Your task to perform on an android device: Search for the best coffee tables on Crate & Barrel Image 0: 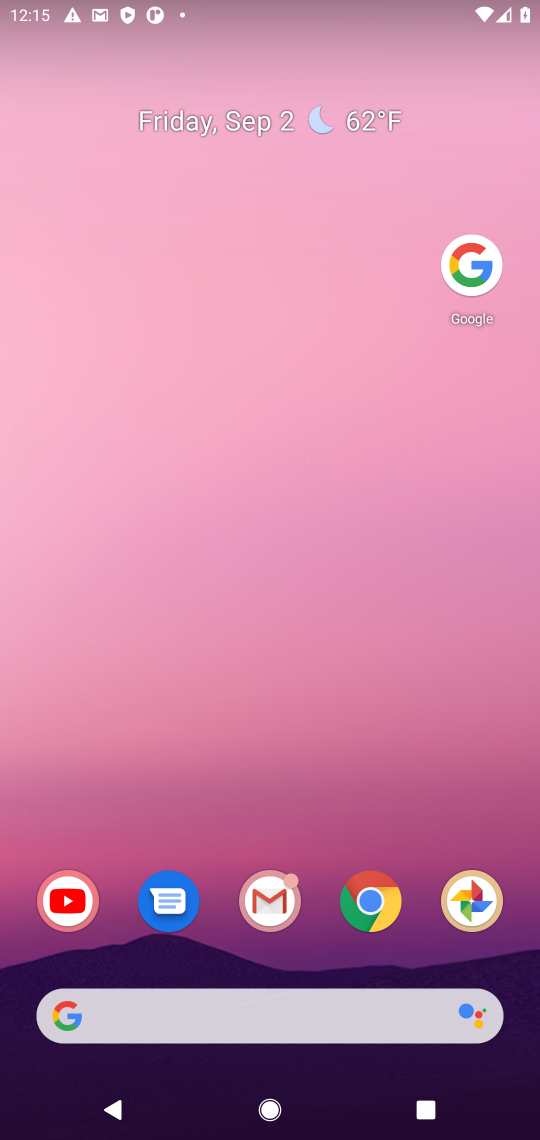
Step 0: drag from (276, 1004) to (263, 480)
Your task to perform on an android device: Search for the best coffee tables on Crate & Barrel Image 1: 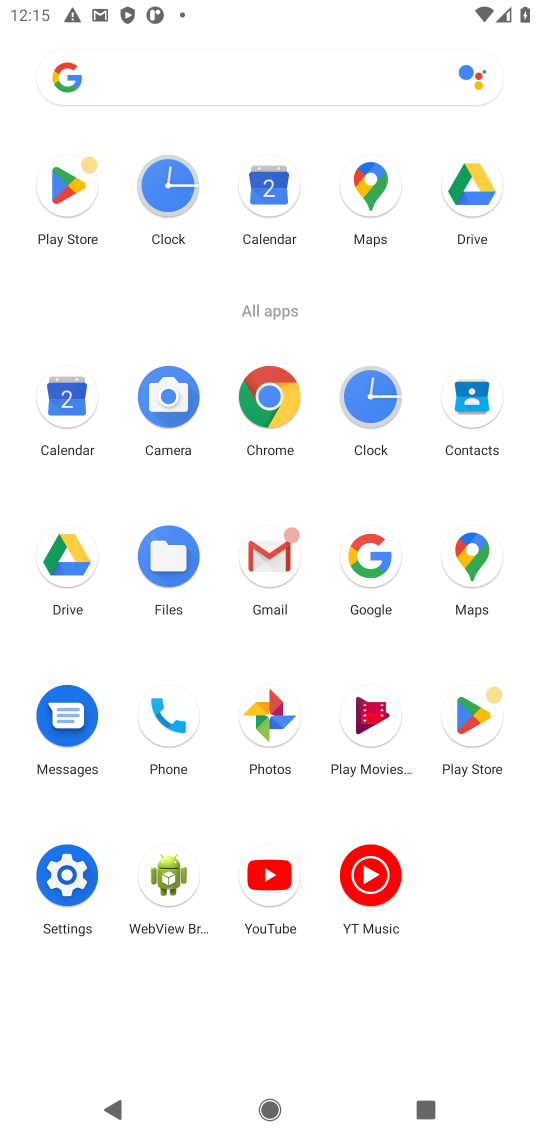
Step 1: click (361, 543)
Your task to perform on an android device: Search for the best coffee tables on Crate & Barrel Image 2: 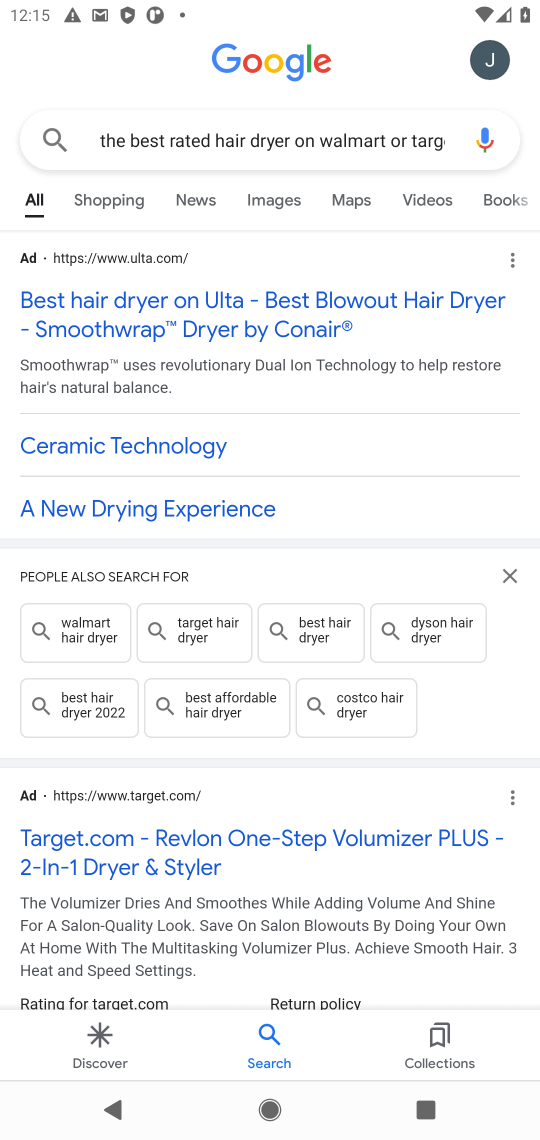
Step 2: click (384, 143)
Your task to perform on an android device: Search for the best coffee tables on Crate & Barrel Image 3: 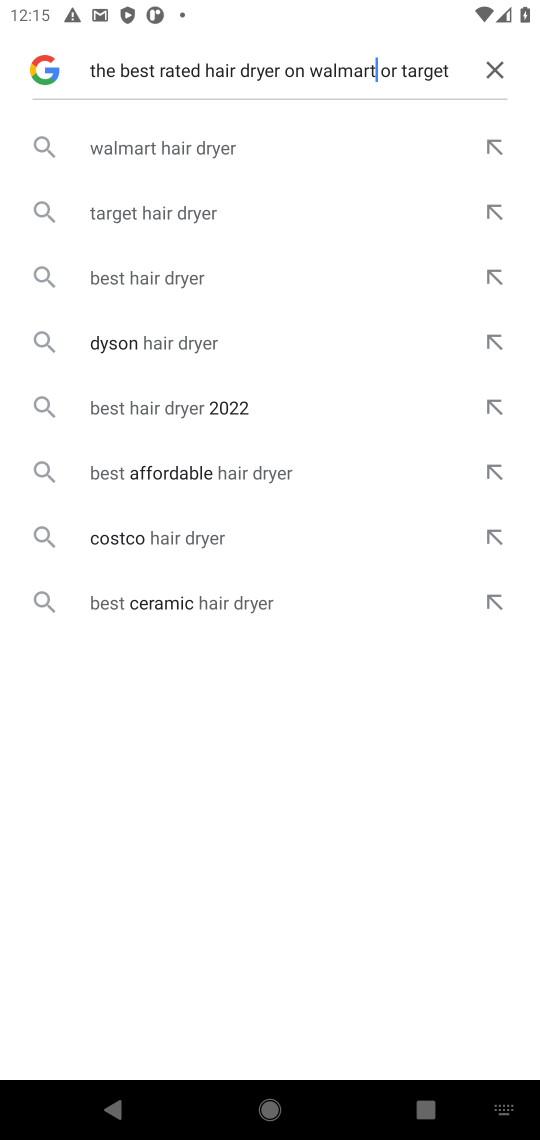
Step 3: click (493, 63)
Your task to perform on an android device: Search for the best coffee tables on Crate & Barrel Image 4: 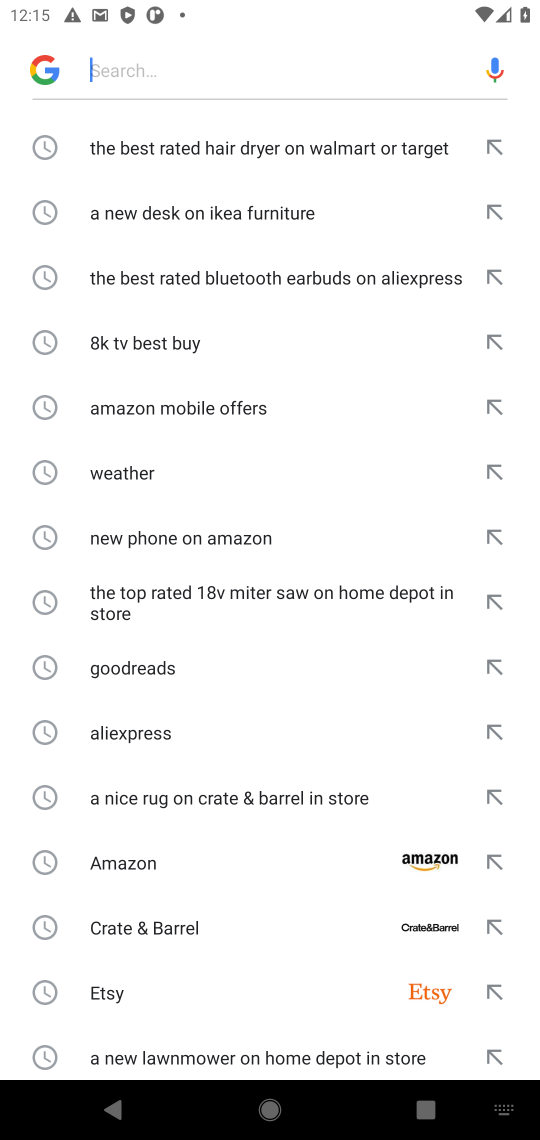
Step 4: click (289, 76)
Your task to perform on an android device: Search for the best coffee tables on Crate & Barrel Image 5: 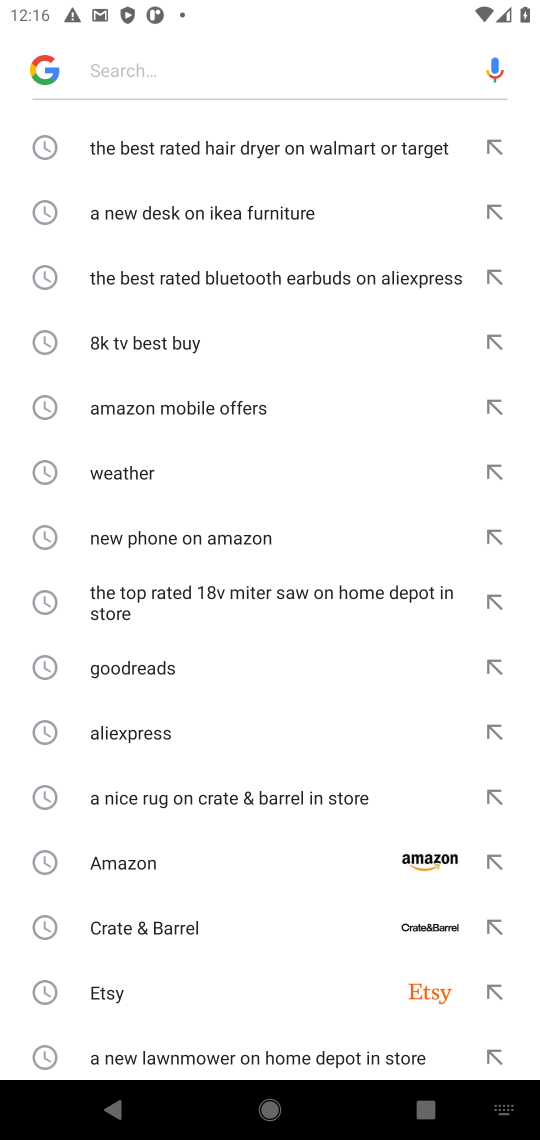
Step 5: type "the best coffee tables on Crate & Barrel "
Your task to perform on an android device: Search for the best coffee tables on Crate & Barrel Image 6: 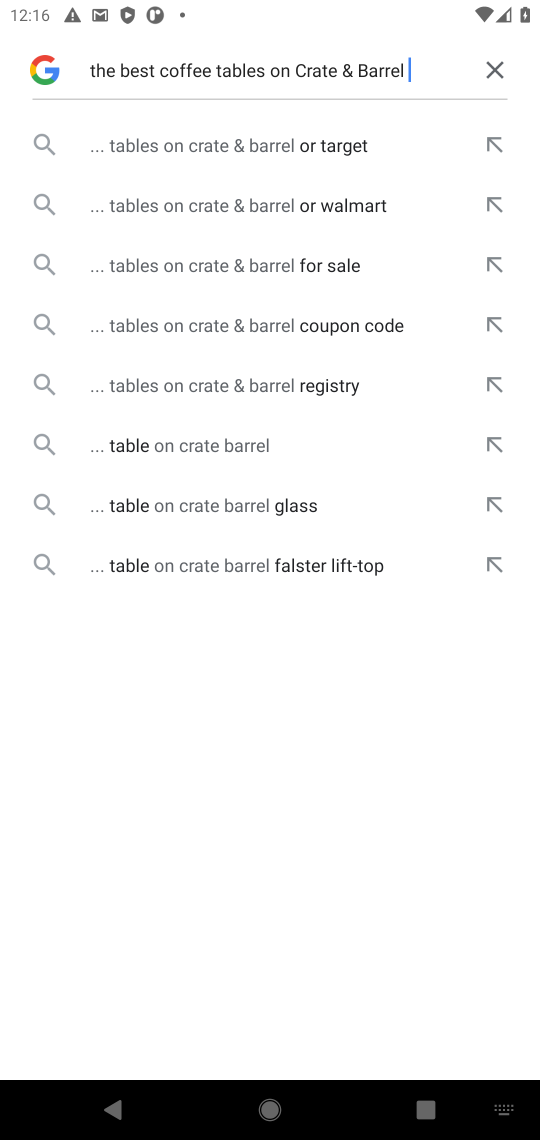
Step 6: click (219, 47)
Your task to perform on an android device: Search for the best coffee tables on Crate & Barrel Image 7: 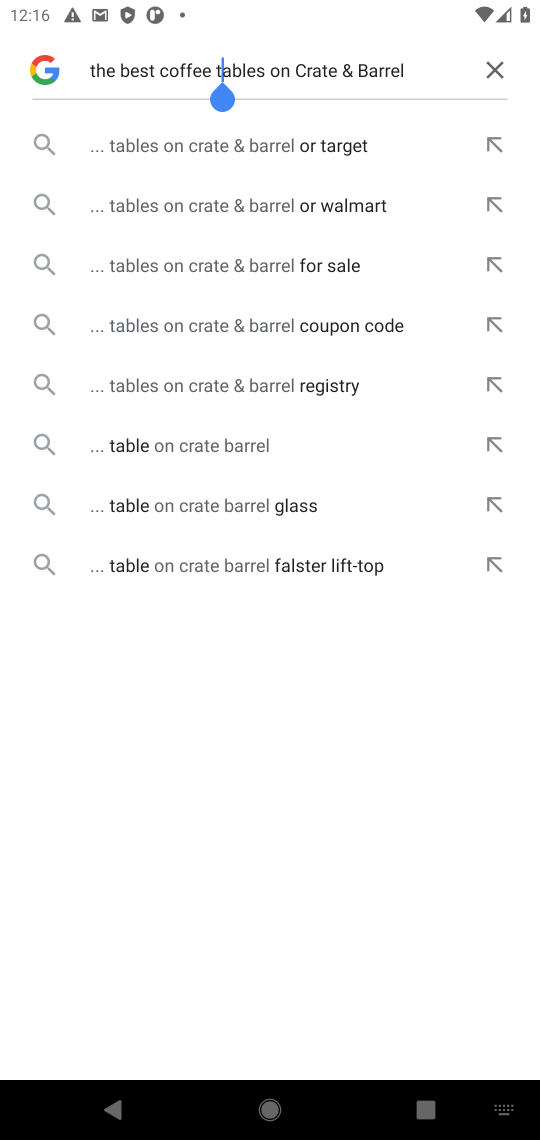
Step 7: click (285, 147)
Your task to perform on an android device: Search for the best coffee tables on Crate & Barrel Image 8: 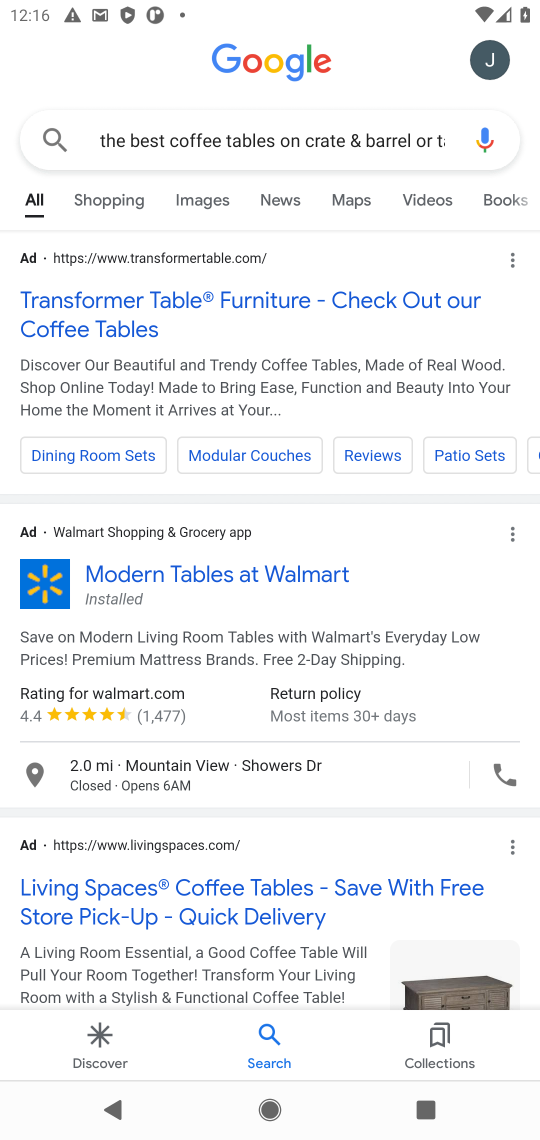
Step 8: drag from (315, 897) to (401, 245)
Your task to perform on an android device: Search for the best coffee tables on Crate & Barrel Image 9: 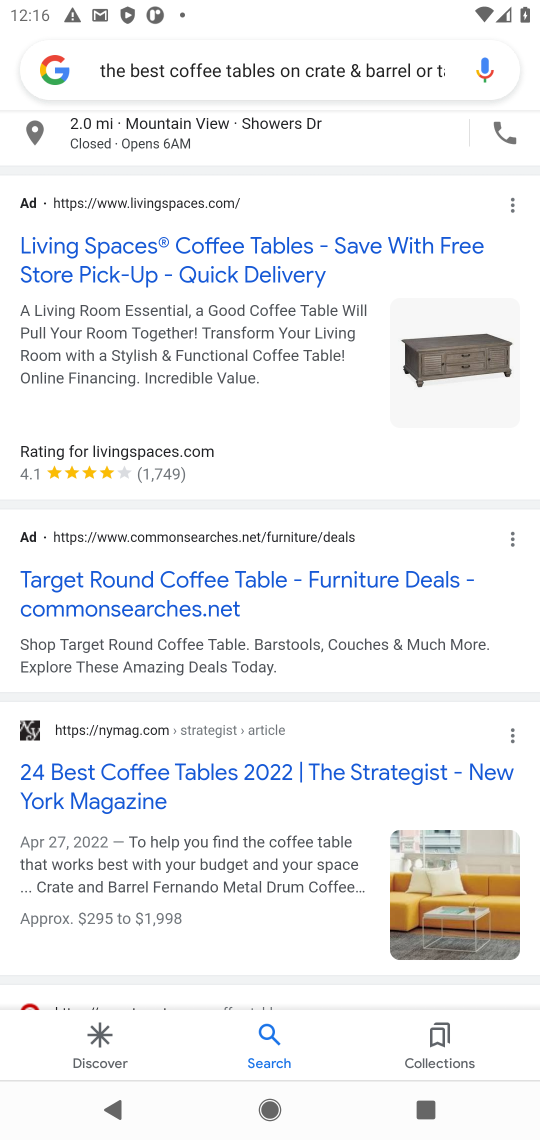
Step 9: drag from (324, 469) to (378, 340)
Your task to perform on an android device: Search for the best coffee tables on Crate & Barrel Image 10: 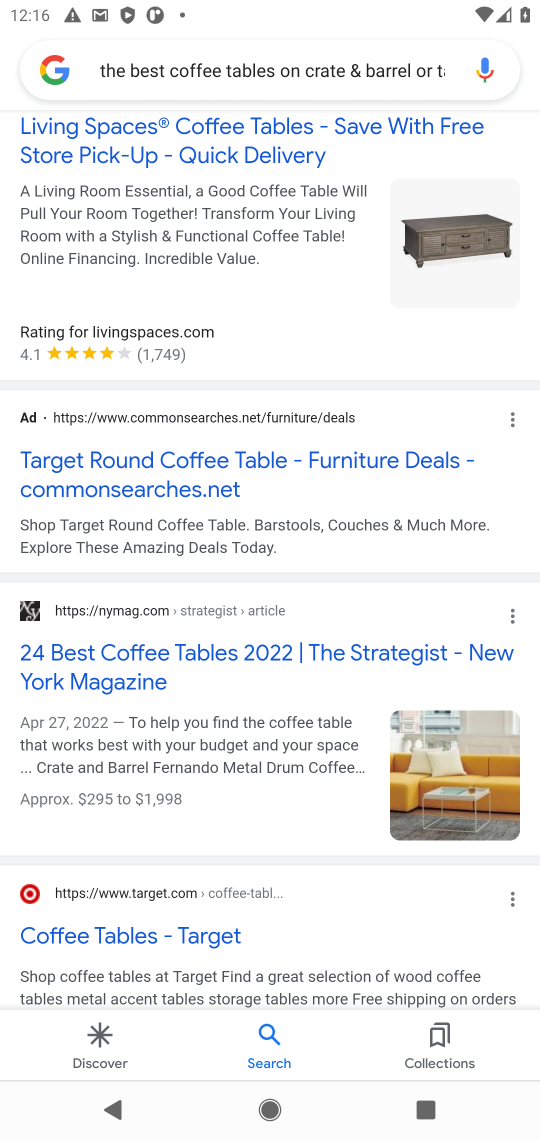
Step 10: drag from (256, 715) to (329, 247)
Your task to perform on an android device: Search for the best coffee tables on Crate & Barrel Image 11: 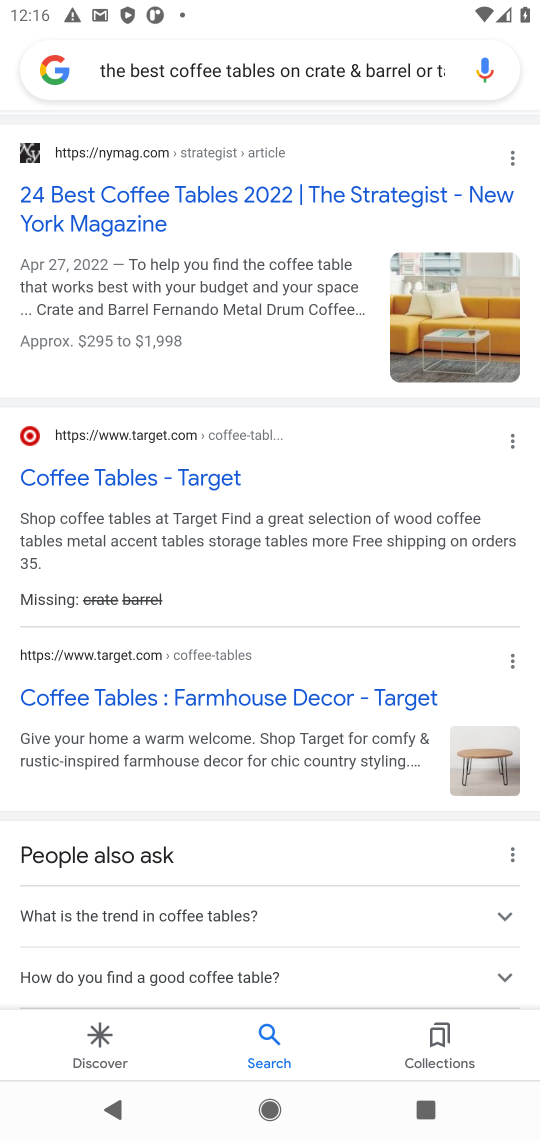
Step 11: drag from (300, 194) to (306, 878)
Your task to perform on an android device: Search for the best coffee tables on Crate & Barrel Image 12: 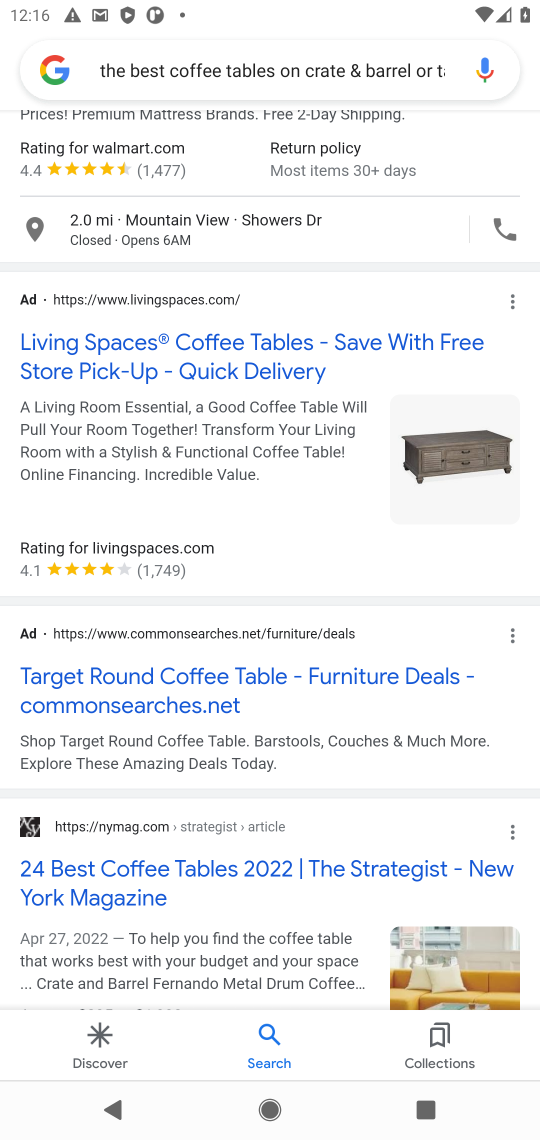
Step 12: drag from (268, 293) to (300, 855)
Your task to perform on an android device: Search for the best coffee tables on Crate & Barrel Image 13: 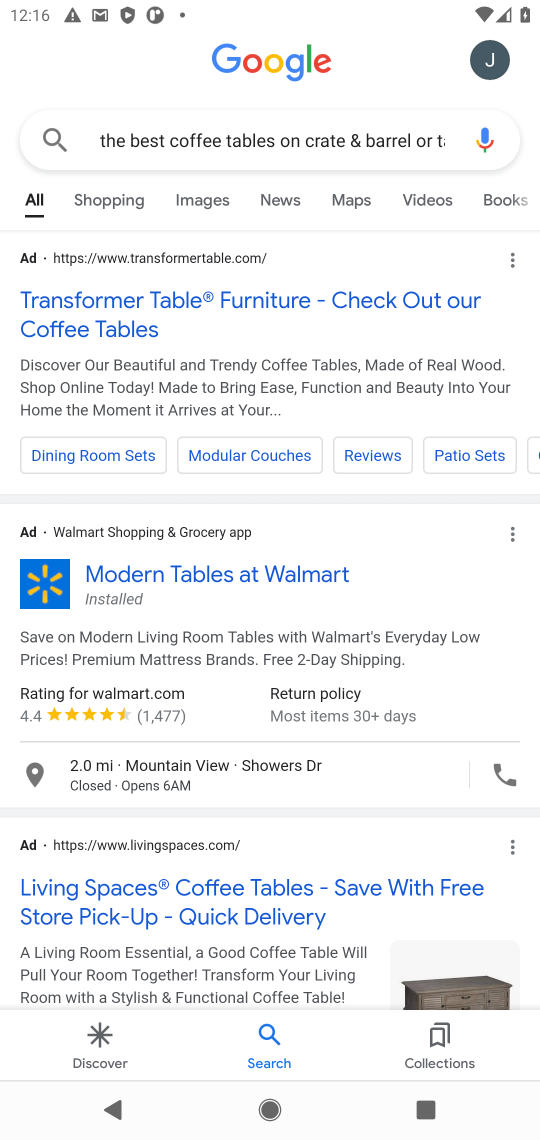
Step 13: click (110, 306)
Your task to perform on an android device: Search for the best coffee tables on Crate & Barrel Image 14: 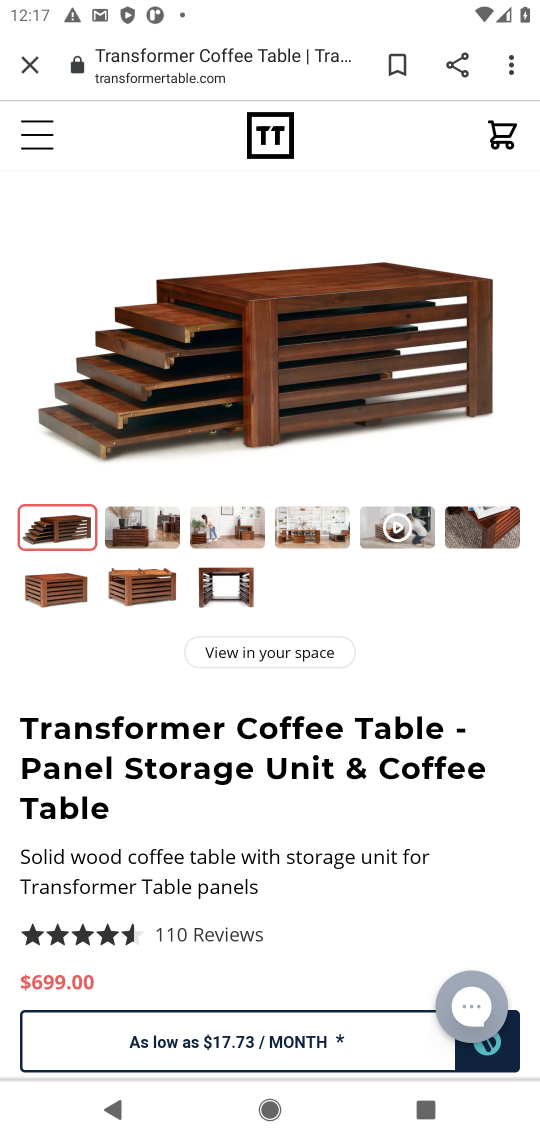
Step 14: task complete